Your task to perform on an android device: toggle data saver in the chrome app Image 0: 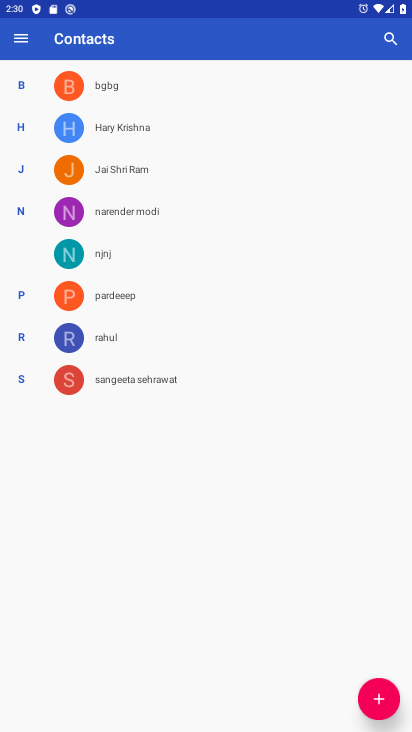
Step 0: press home button
Your task to perform on an android device: toggle data saver in the chrome app Image 1: 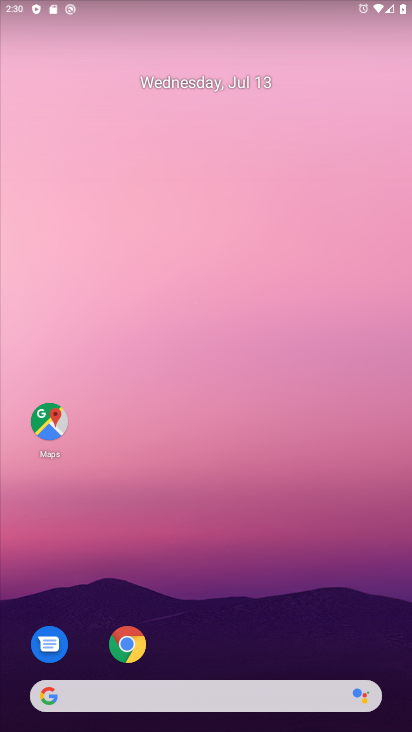
Step 1: drag from (241, 727) to (244, 121)
Your task to perform on an android device: toggle data saver in the chrome app Image 2: 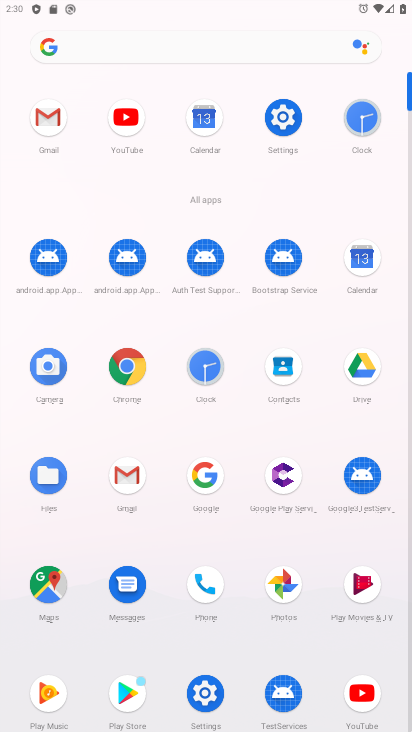
Step 2: click (137, 359)
Your task to perform on an android device: toggle data saver in the chrome app Image 3: 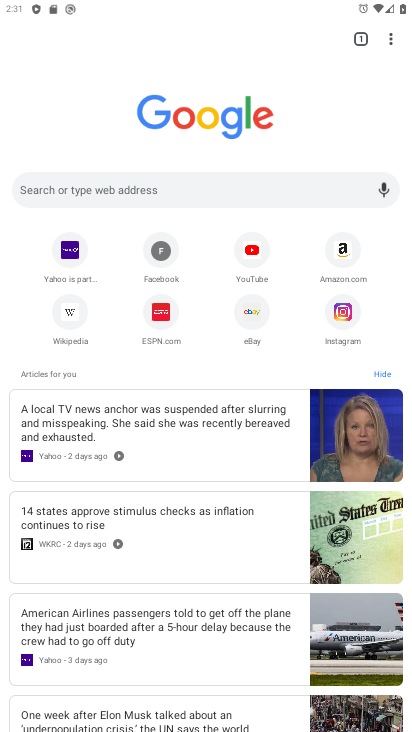
Step 3: click (391, 37)
Your task to perform on an android device: toggle data saver in the chrome app Image 4: 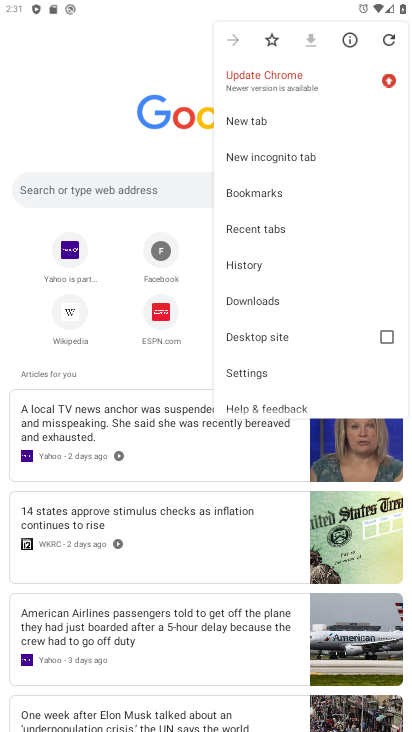
Step 4: click (266, 373)
Your task to perform on an android device: toggle data saver in the chrome app Image 5: 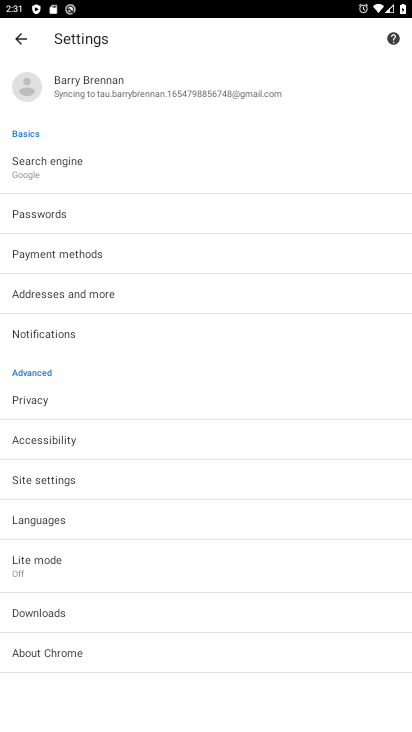
Step 5: click (70, 567)
Your task to perform on an android device: toggle data saver in the chrome app Image 6: 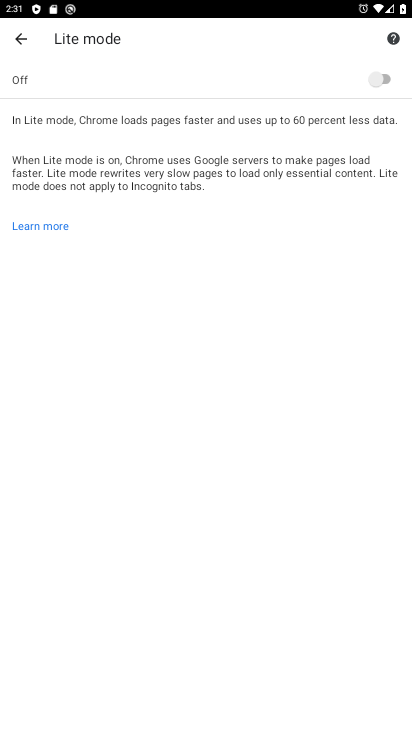
Step 6: click (389, 76)
Your task to perform on an android device: toggle data saver in the chrome app Image 7: 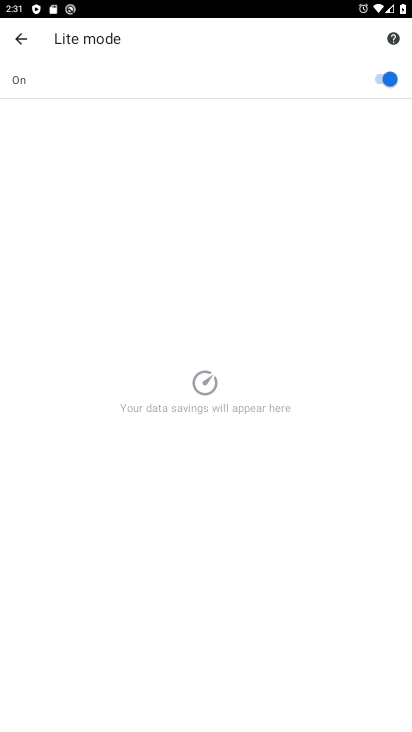
Step 7: task complete